Your task to perform on an android device: Go to Maps Image 0: 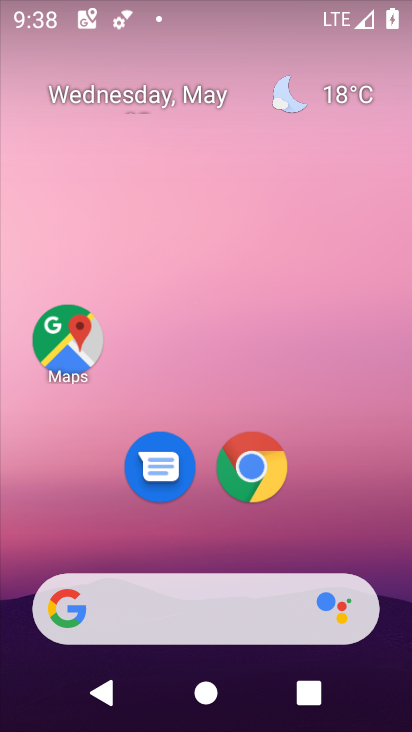
Step 0: drag from (327, 508) to (356, 107)
Your task to perform on an android device: Go to Maps Image 1: 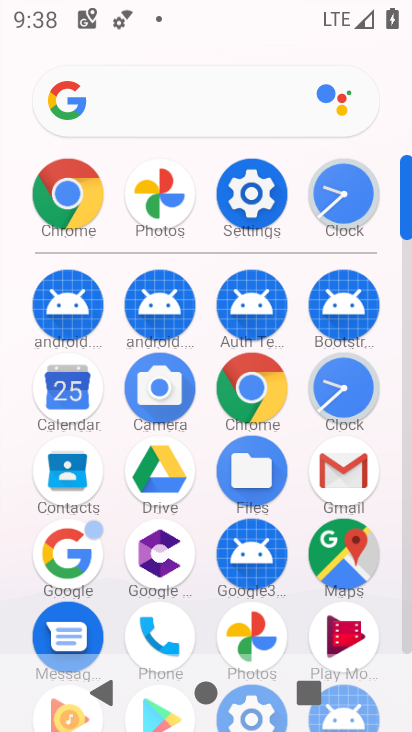
Step 1: click (343, 543)
Your task to perform on an android device: Go to Maps Image 2: 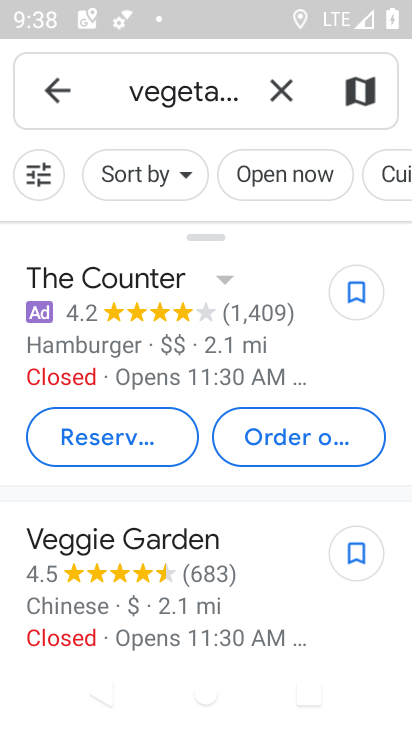
Step 2: task complete